Your task to perform on an android device: Open Maps and search for coffee Image 0: 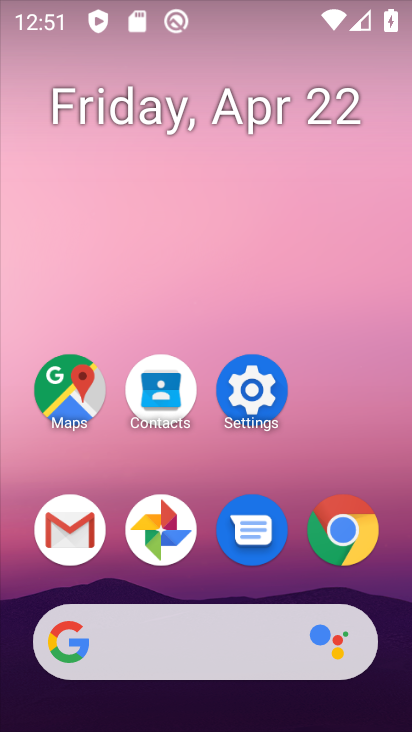
Step 0: click (67, 393)
Your task to perform on an android device: Open Maps and search for coffee Image 1: 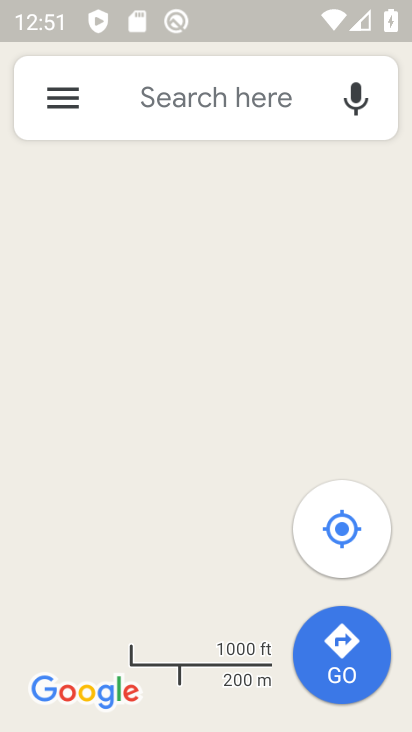
Step 1: click (173, 109)
Your task to perform on an android device: Open Maps and search for coffee Image 2: 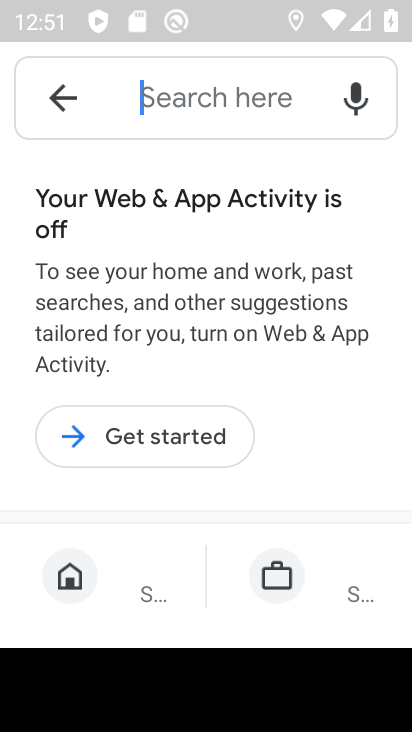
Step 2: type "coffee"
Your task to perform on an android device: Open Maps and search for coffee Image 3: 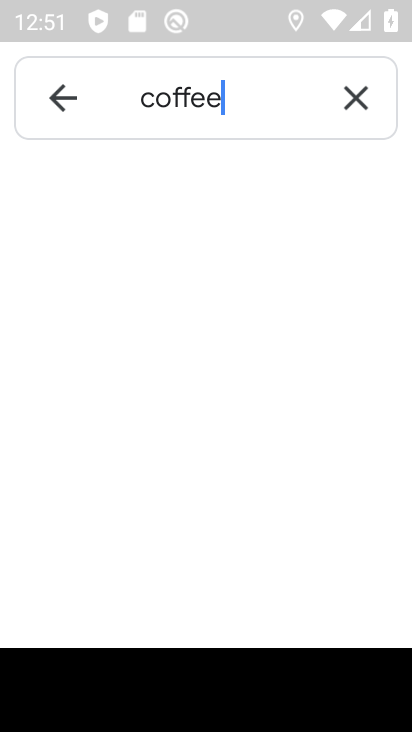
Step 3: type ""
Your task to perform on an android device: Open Maps and search for coffee Image 4: 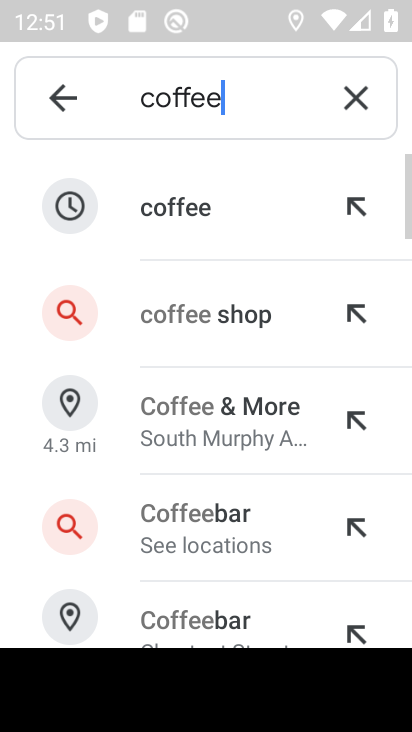
Step 4: click (183, 205)
Your task to perform on an android device: Open Maps and search for coffee Image 5: 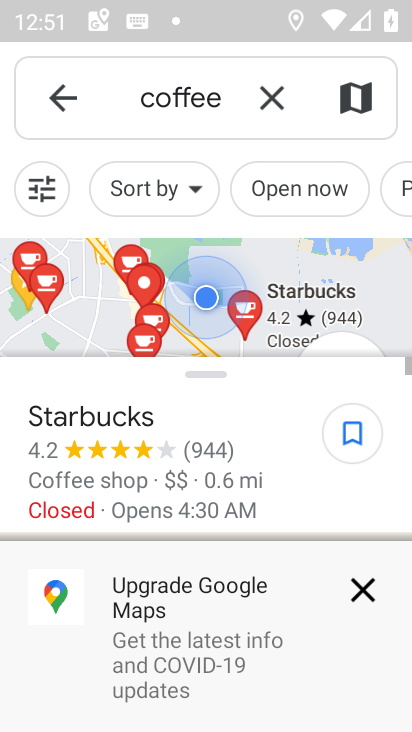
Step 5: task complete